Your task to perform on an android device: toggle show notifications on the lock screen Image 0: 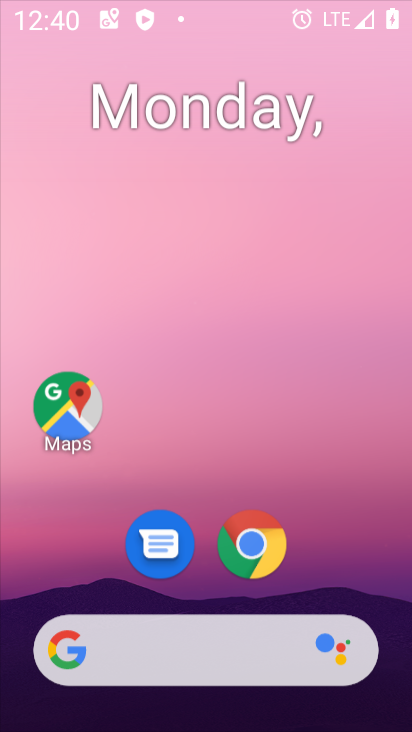
Step 0: drag from (395, 313) to (391, 162)
Your task to perform on an android device: toggle show notifications on the lock screen Image 1: 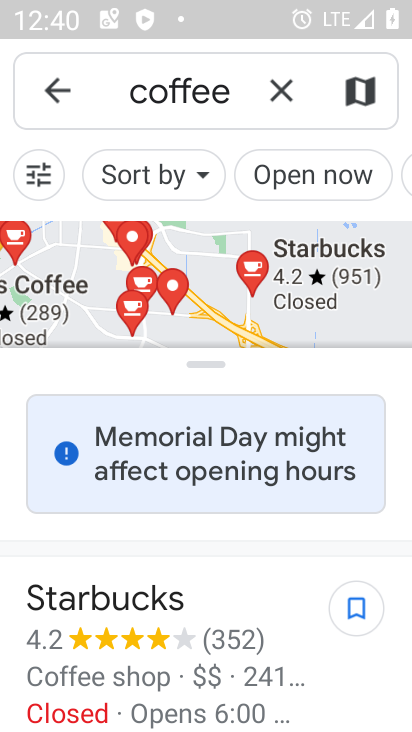
Step 1: press home button
Your task to perform on an android device: toggle show notifications on the lock screen Image 2: 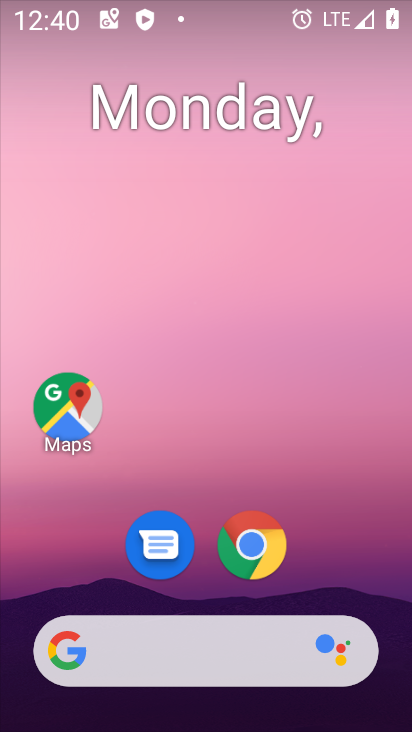
Step 2: drag from (392, 547) to (374, 309)
Your task to perform on an android device: toggle show notifications on the lock screen Image 3: 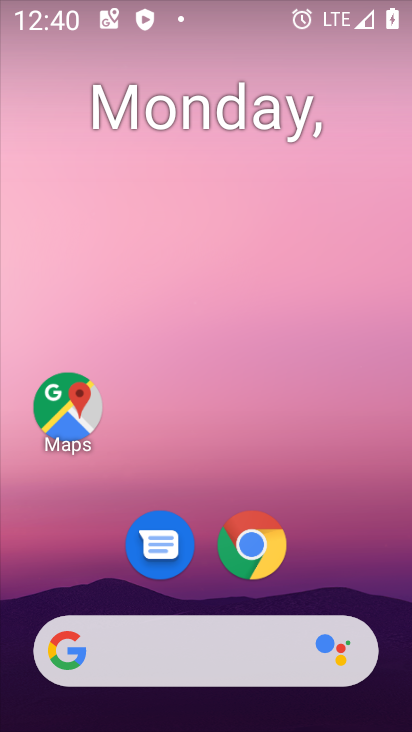
Step 3: drag from (322, 579) to (330, 235)
Your task to perform on an android device: toggle show notifications on the lock screen Image 4: 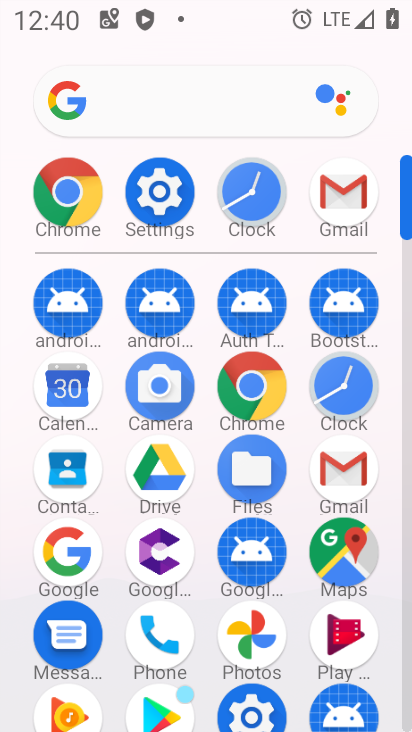
Step 4: click (175, 228)
Your task to perform on an android device: toggle show notifications on the lock screen Image 5: 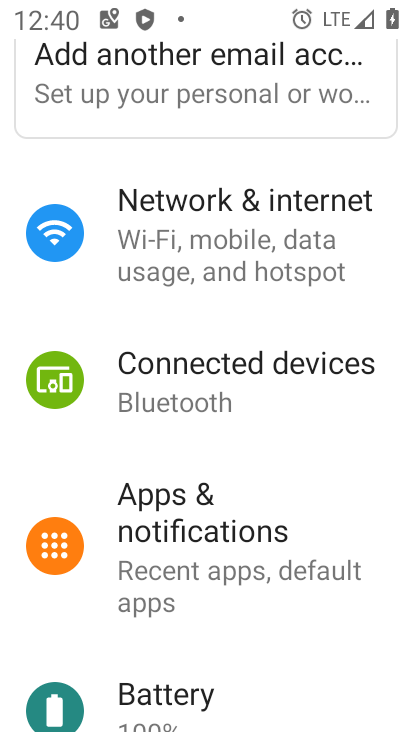
Step 5: drag from (327, 513) to (338, 284)
Your task to perform on an android device: toggle show notifications on the lock screen Image 6: 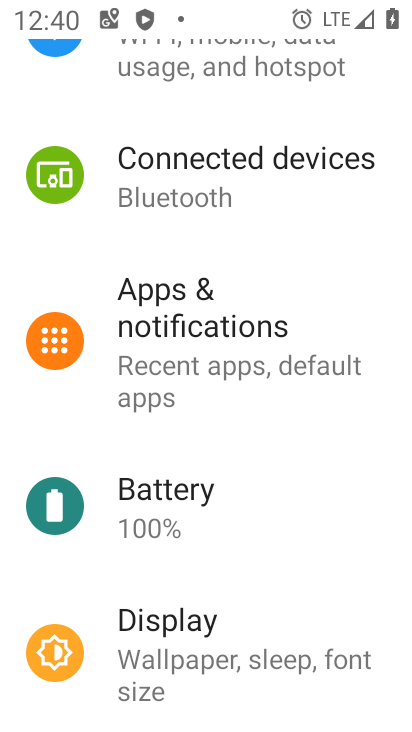
Step 6: click (282, 340)
Your task to perform on an android device: toggle show notifications on the lock screen Image 7: 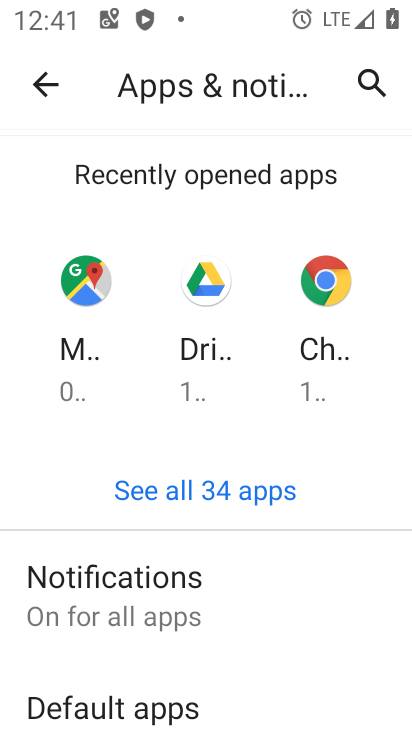
Step 7: drag from (261, 636) to (290, 419)
Your task to perform on an android device: toggle show notifications on the lock screen Image 8: 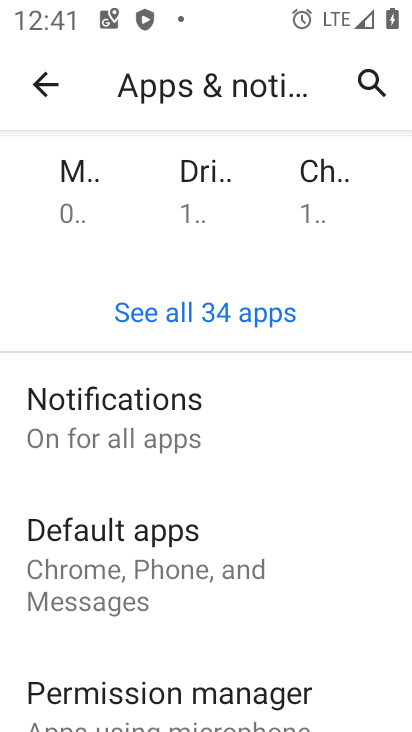
Step 8: drag from (278, 584) to (301, 412)
Your task to perform on an android device: toggle show notifications on the lock screen Image 9: 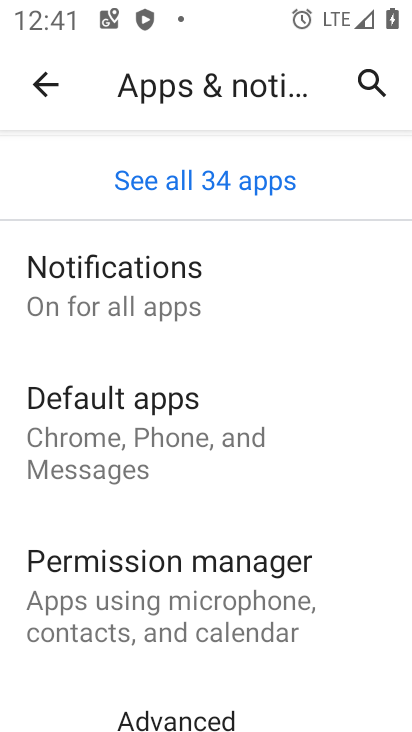
Step 9: drag from (338, 658) to (353, 511)
Your task to perform on an android device: toggle show notifications on the lock screen Image 10: 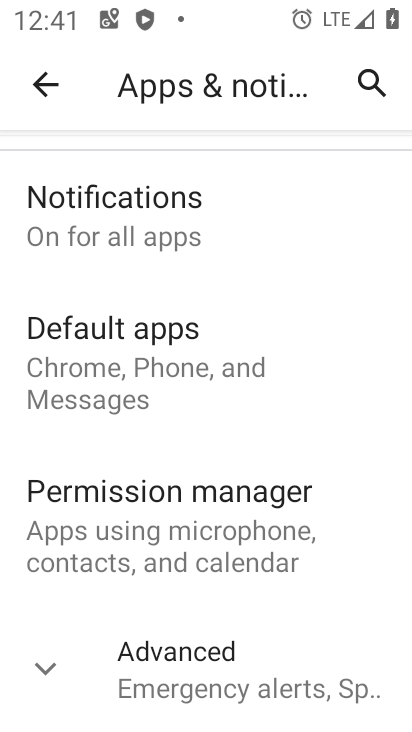
Step 10: click (194, 247)
Your task to perform on an android device: toggle show notifications on the lock screen Image 11: 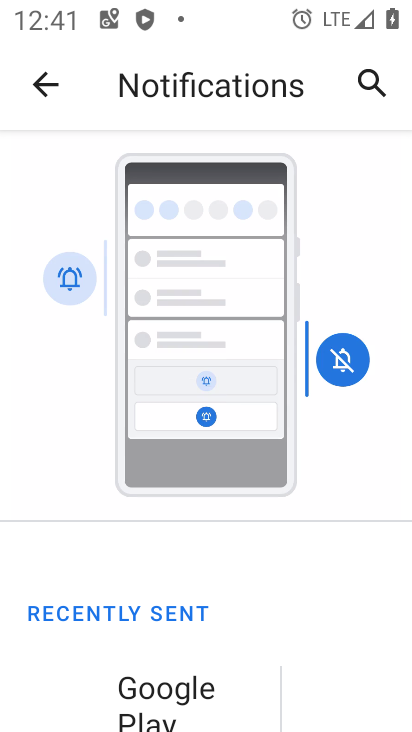
Step 11: drag from (261, 600) to (275, 435)
Your task to perform on an android device: toggle show notifications on the lock screen Image 12: 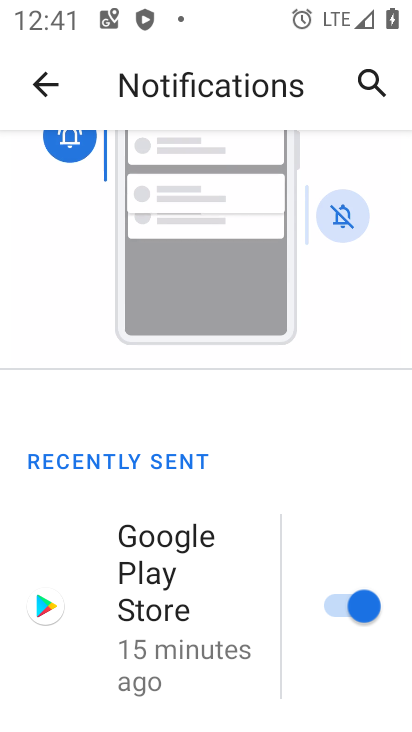
Step 12: drag from (243, 629) to (257, 453)
Your task to perform on an android device: toggle show notifications on the lock screen Image 13: 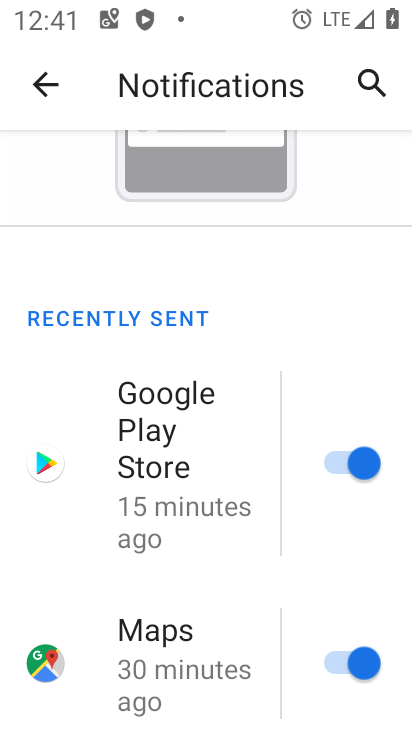
Step 13: drag from (271, 676) to (286, 482)
Your task to perform on an android device: toggle show notifications on the lock screen Image 14: 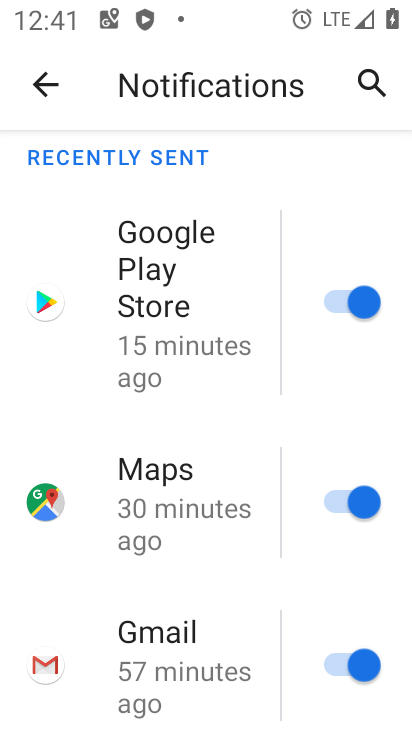
Step 14: drag from (254, 645) to (266, 502)
Your task to perform on an android device: toggle show notifications on the lock screen Image 15: 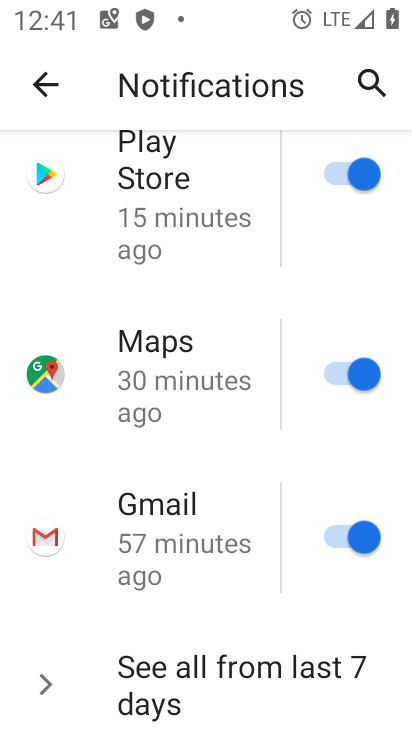
Step 15: drag from (232, 630) to (259, 498)
Your task to perform on an android device: toggle show notifications on the lock screen Image 16: 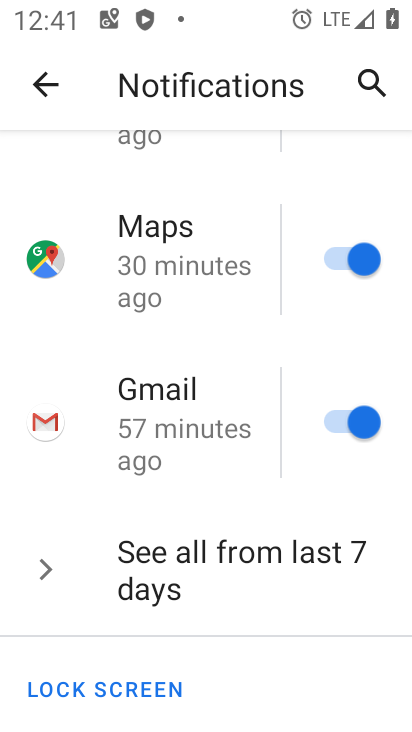
Step 16: drag from (240, 186) to (241, 342)
Your task to perform on an android device: toggle show notifications on the lock screen Image 17: 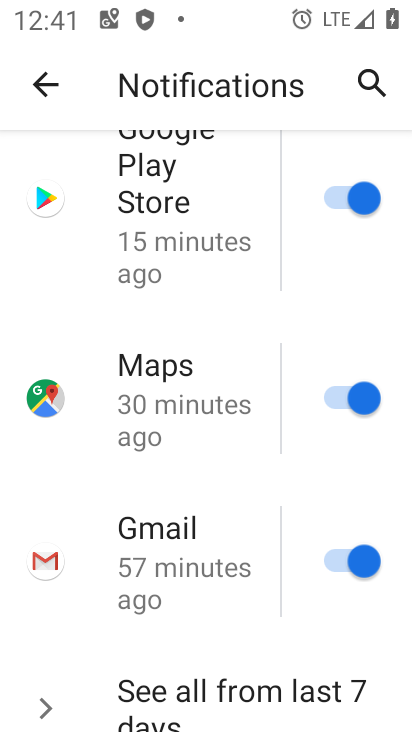
Step 17: drag from (229, 178) to (203, 372)
Your task to perform on an android device: toggle show notifications on the lock screen Image 18: 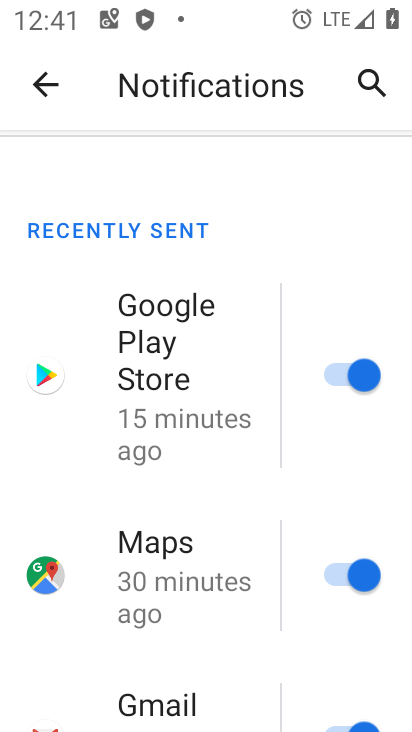
Step 18: drag from (229, 208) to (237, 387)
Your task to perform on an android device: toggle show notifications on the lock screen Image 19: 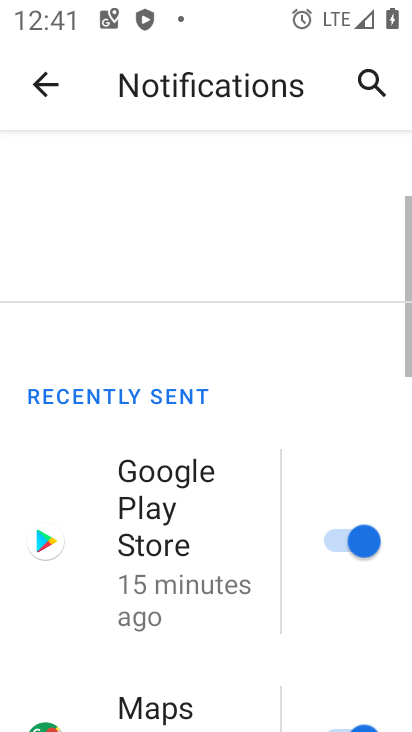
Step 19: drag from (236, 361) to (247, 231)
Your task to perform on an android device: toggle show notifications on the lock screen Image 20: 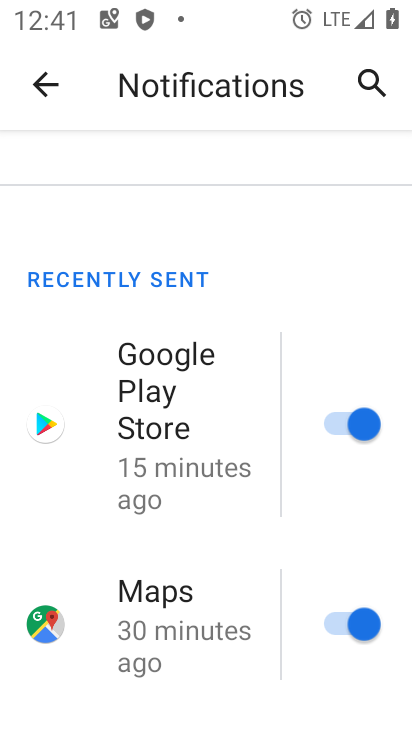
Step 20: drag from (236, 490) to (261, 326)
Your task to perform on an android device: toggle show notifications on the lock screen Image 21: 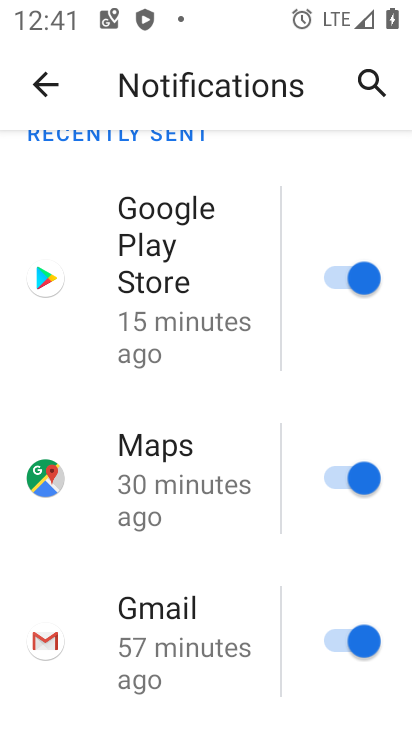
Step 21: drag from (232, 576) to (251, 352)
Your task to perform on an android device: toggle show notifications on the lock screen Image 22: 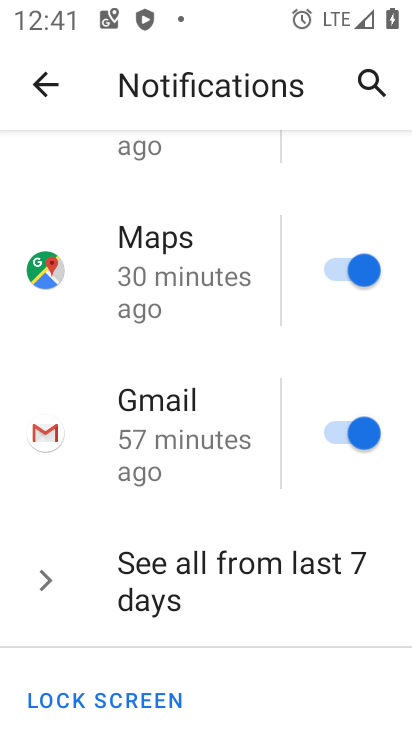
Step 22: drag from (230, 579) to (241, 396)
Your task to perform on an android device: toggle show notifications on the lock screen Image 23: 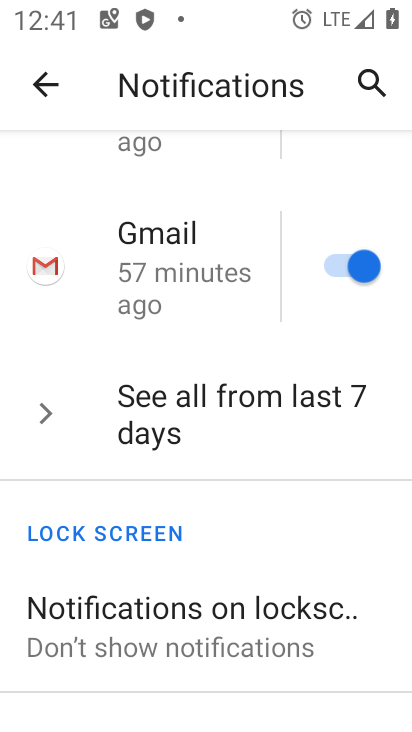
Step 23: drag from (242, 596) to (263, 436)
Your task to perform on an android device: toggle show notifications on the lock screen Image 24: 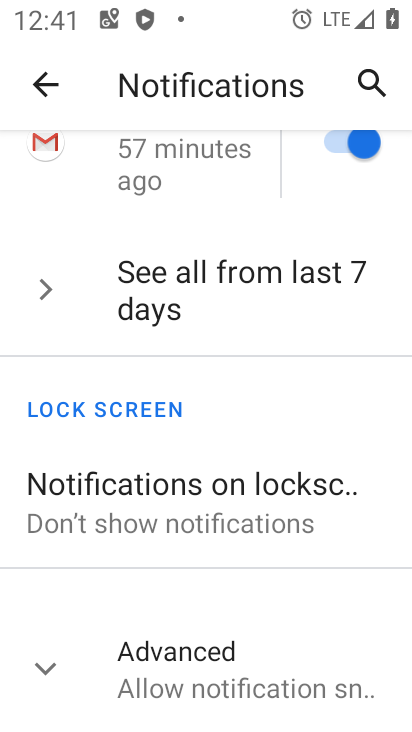
Step 24: click (277, 489)
Your task to perform on an android device: toggle show notifications on the lock screen Image 25: 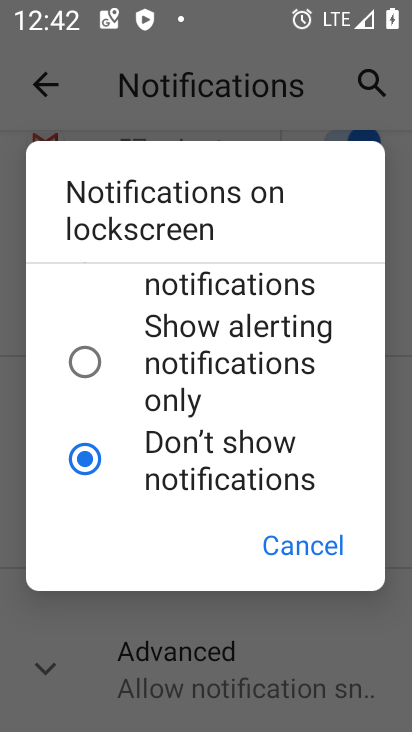
Step 25: click (91, 348)
Your task to perform on an android device: toggle show notifications on the lock screen Image 26: 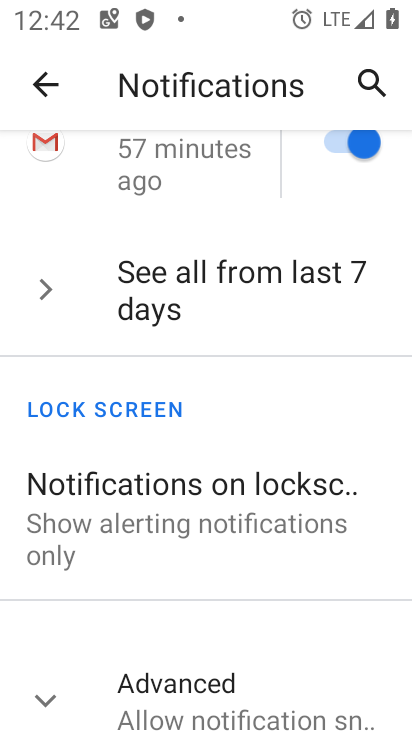
Step 26: task complete